Your task to perform on an android device: When is my next appointment? Image 0: 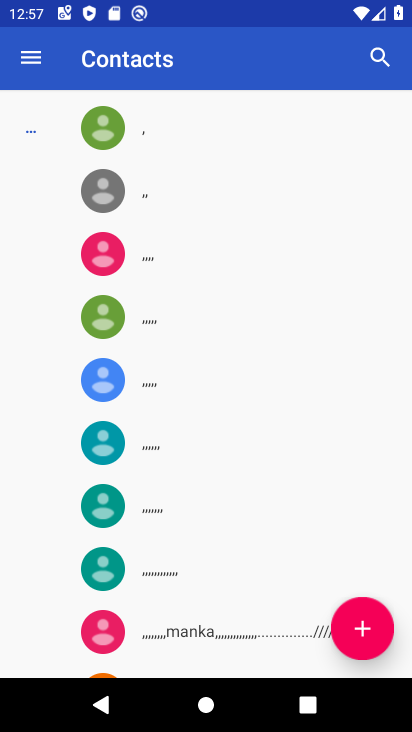
Step 0: press home button
Your task to perform on an android device: When is my next appointment? Image 1: 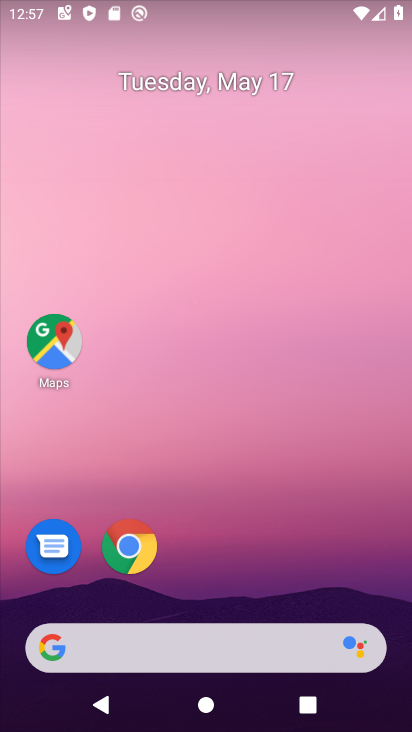
Step 1: drag from (340, 396) to (321, 52)
Your task to perform on an android device: When is my next appointment? Image 2: 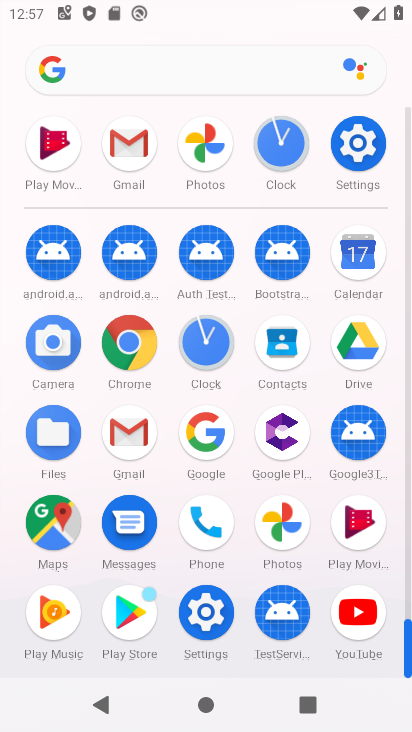
Step 2: click (356, 255)
Your task to perform on an android device: When is my next appointment? Image 3: 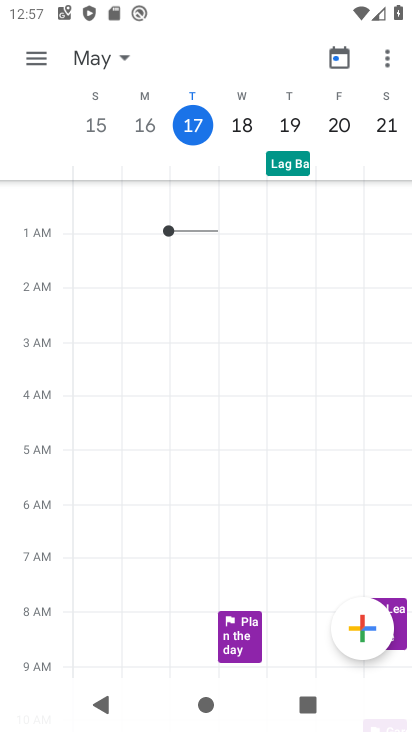
Step 3: click (36, 62)
Your task to perform on an android device: When is my next appointment? Image 4: 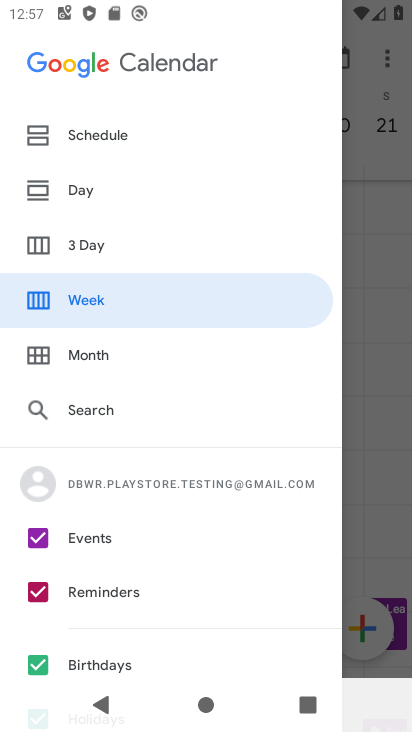
Step 4: click (106, 138)
Your task to perform on an android device: When is my next appointment? Image 5: 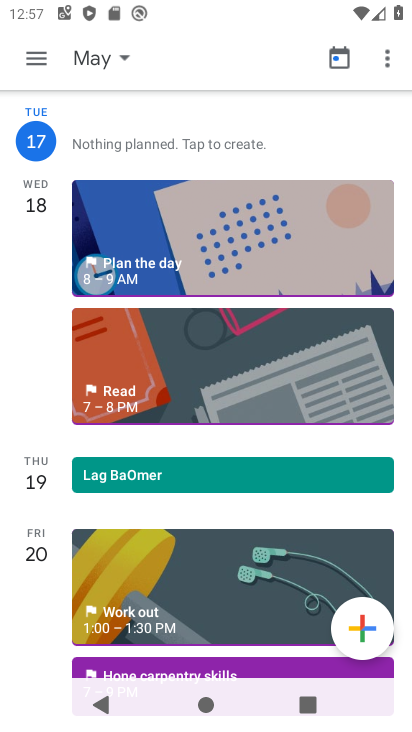
Step 5: task complete